Your task to perform on an android device: toggle show notifications on the lock screen Image 0: 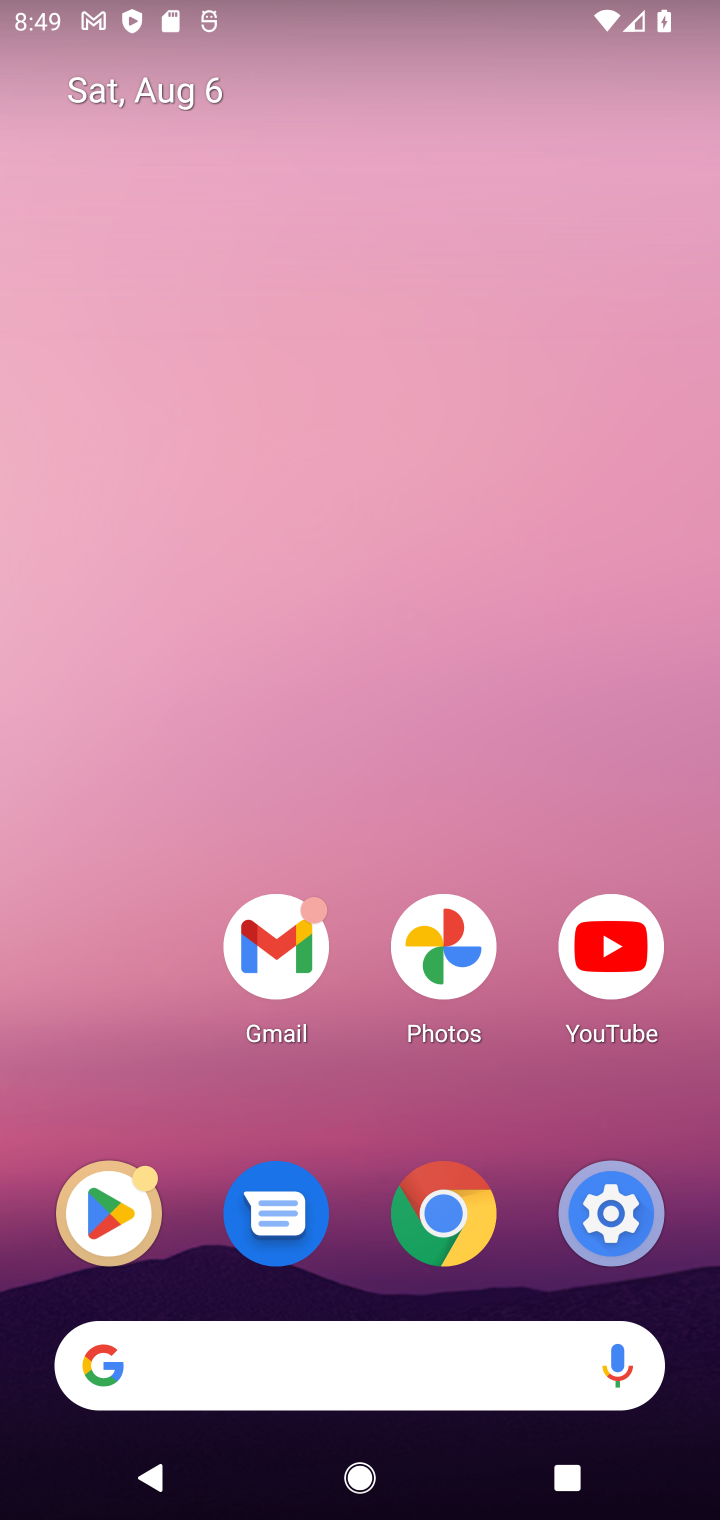
Step 0: drag from (377, 461) to (407, 90)
Your task to perform on an android device: toggle show notifications on the lock screen Image 1: 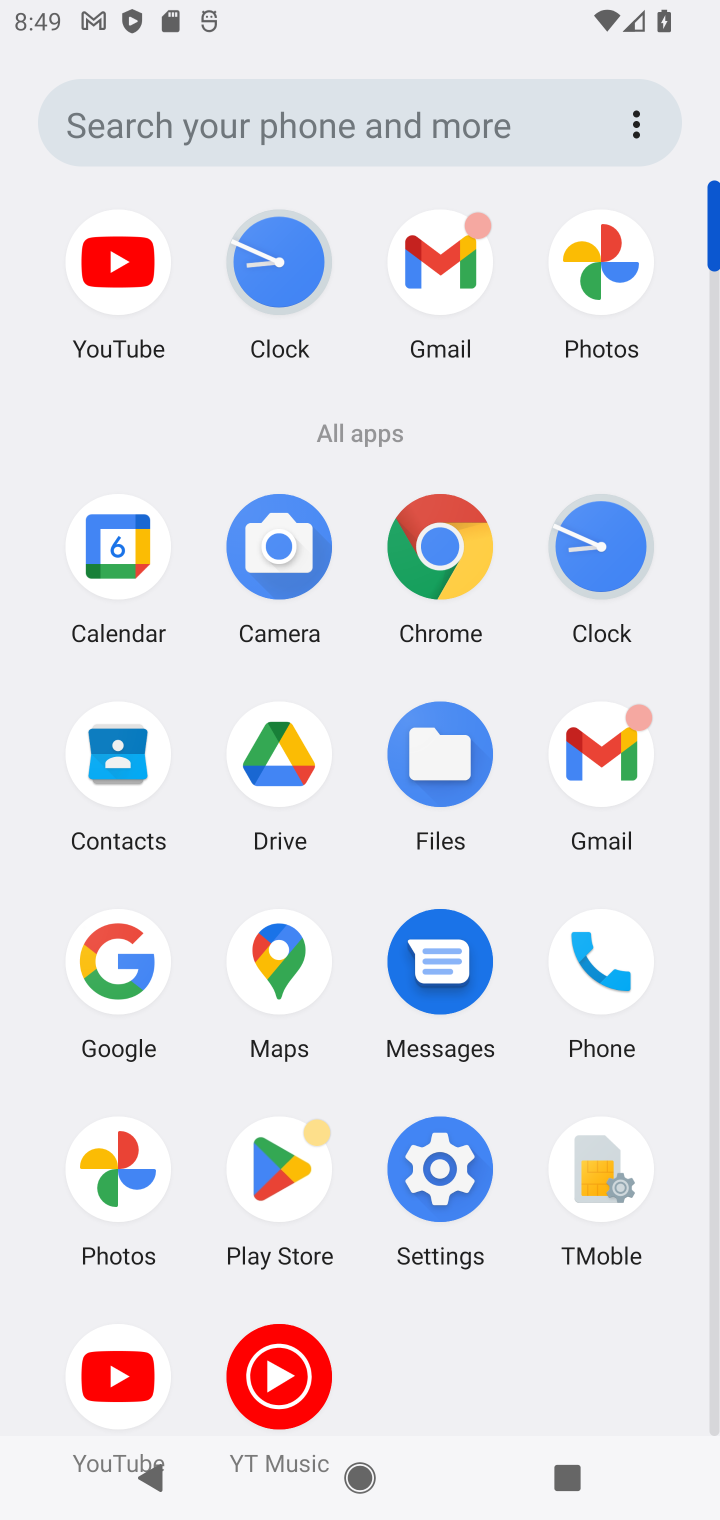
Step 1: click (436, 1173)
Your task to perform on an android device: toggle show notifications on the lock screen Image 2: 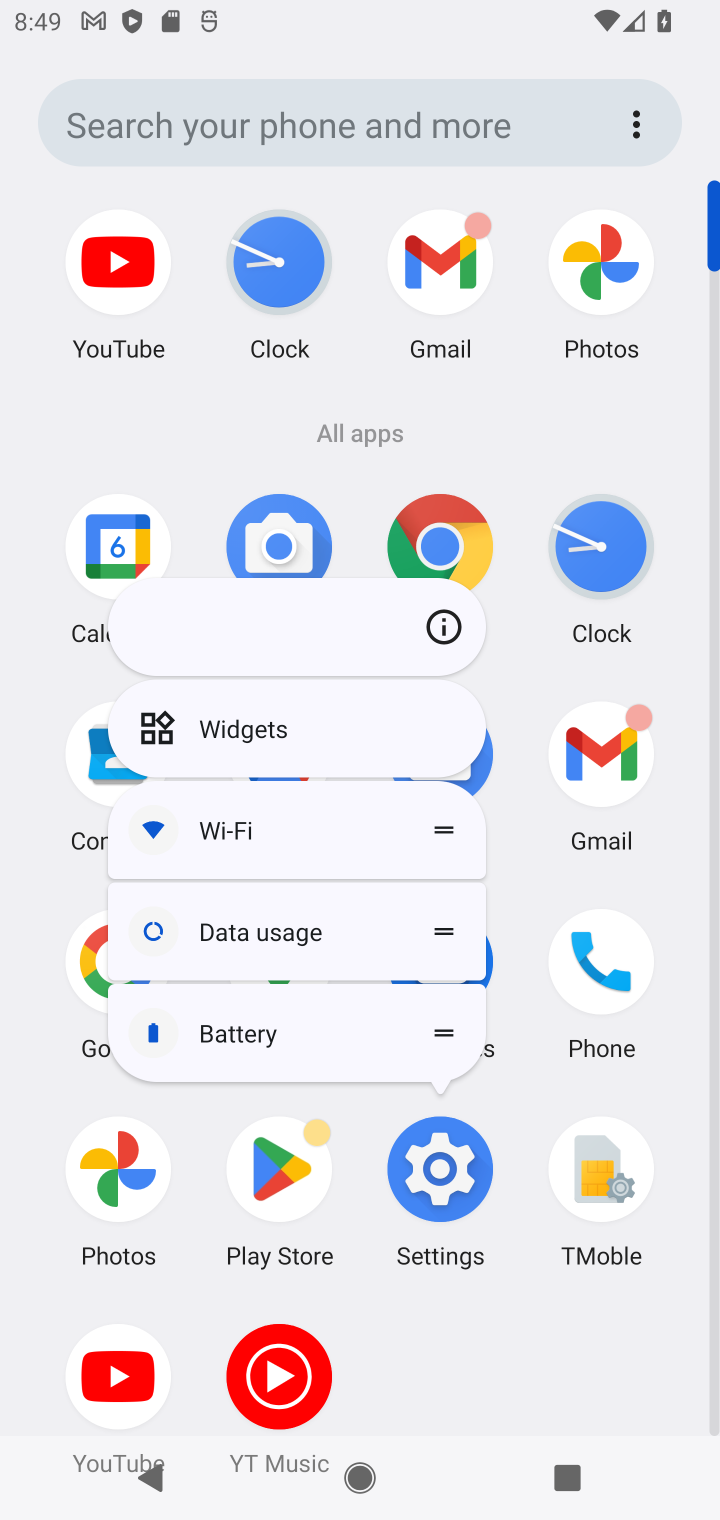
Step 2: click (430, 1152)
Your task to perform on an android device: toggle show notifications on the lock screen Image 3: 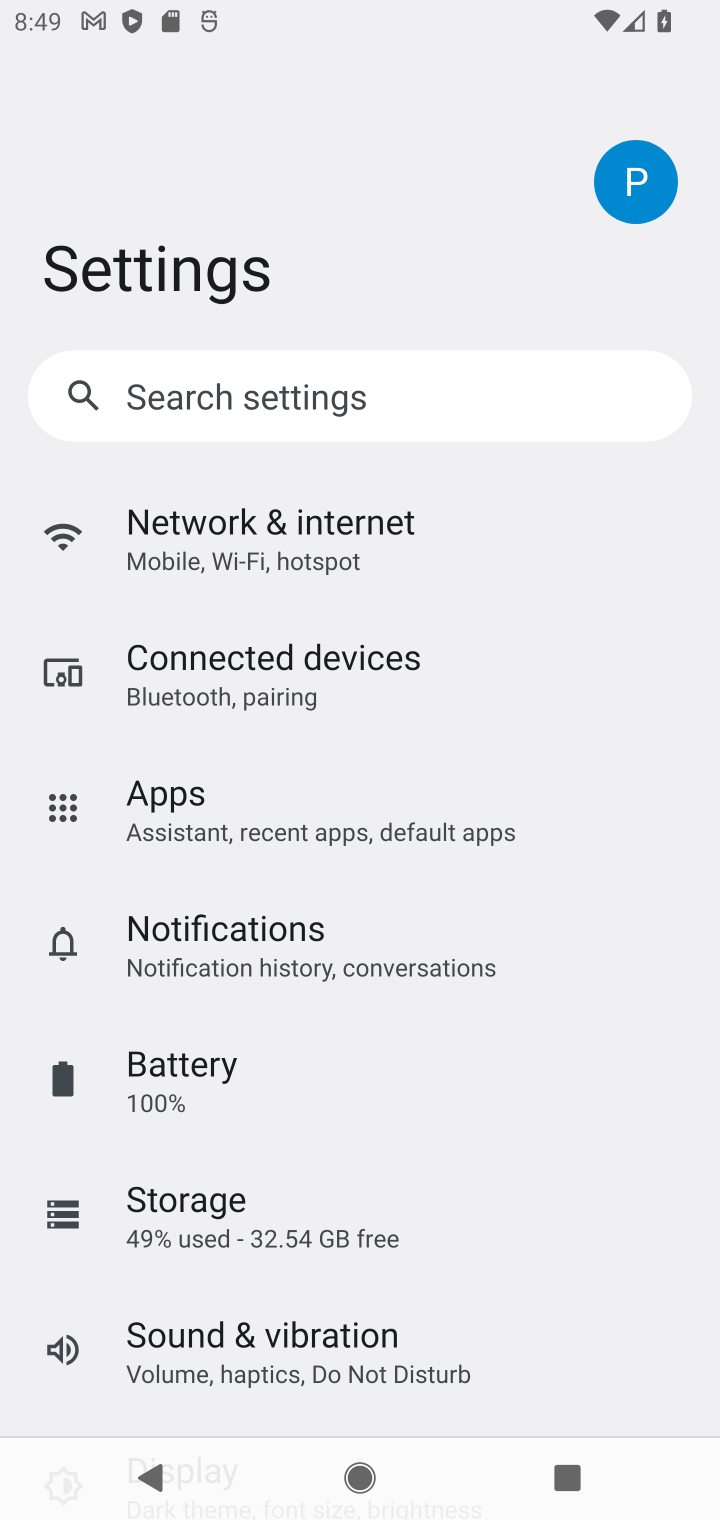
Step 3: click (331, 968)
Your task to perform on an android device: toggle show notifications on the lock screen Image 4: 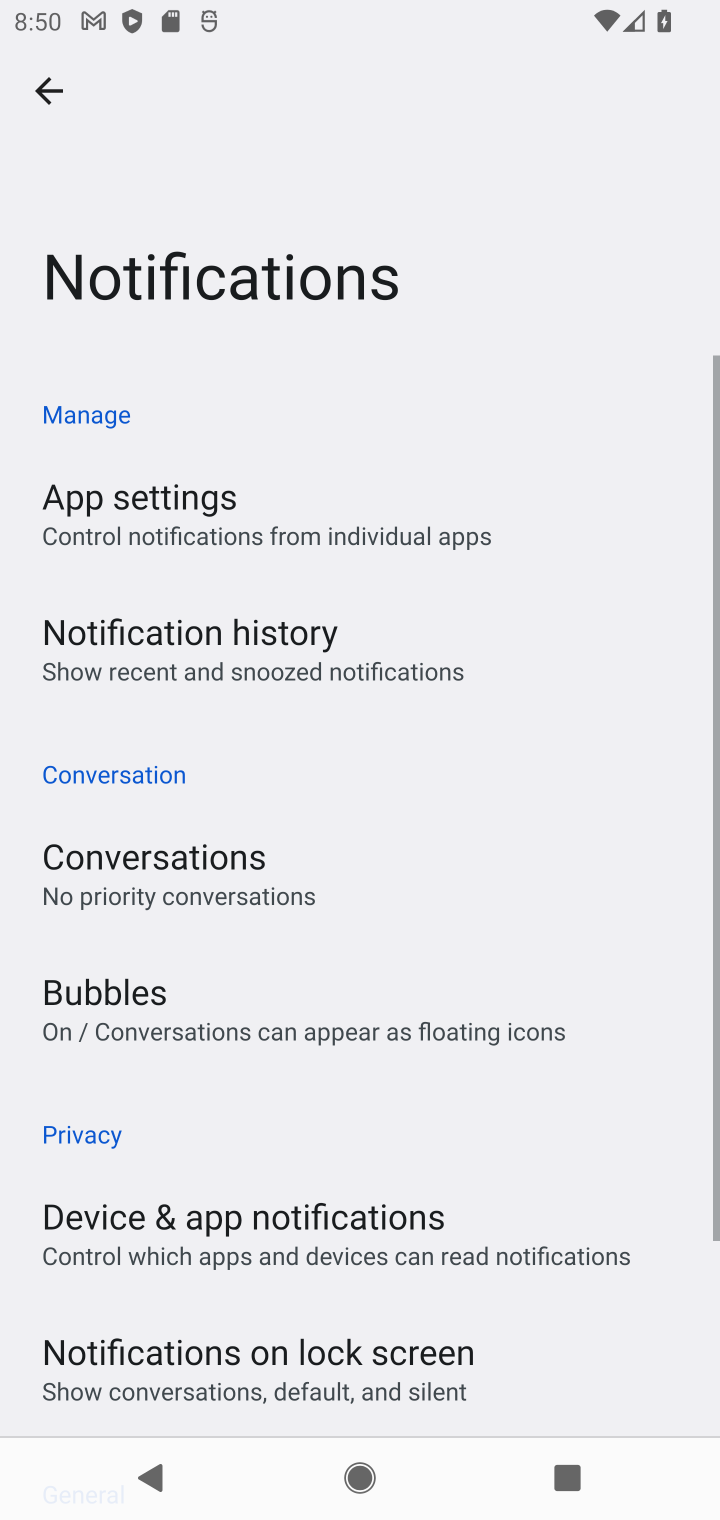
Step 4: drag from (344, 1293) to (305, 425)
Your task to perform on an android device: toggle show notifications on the lock screen Image 5: 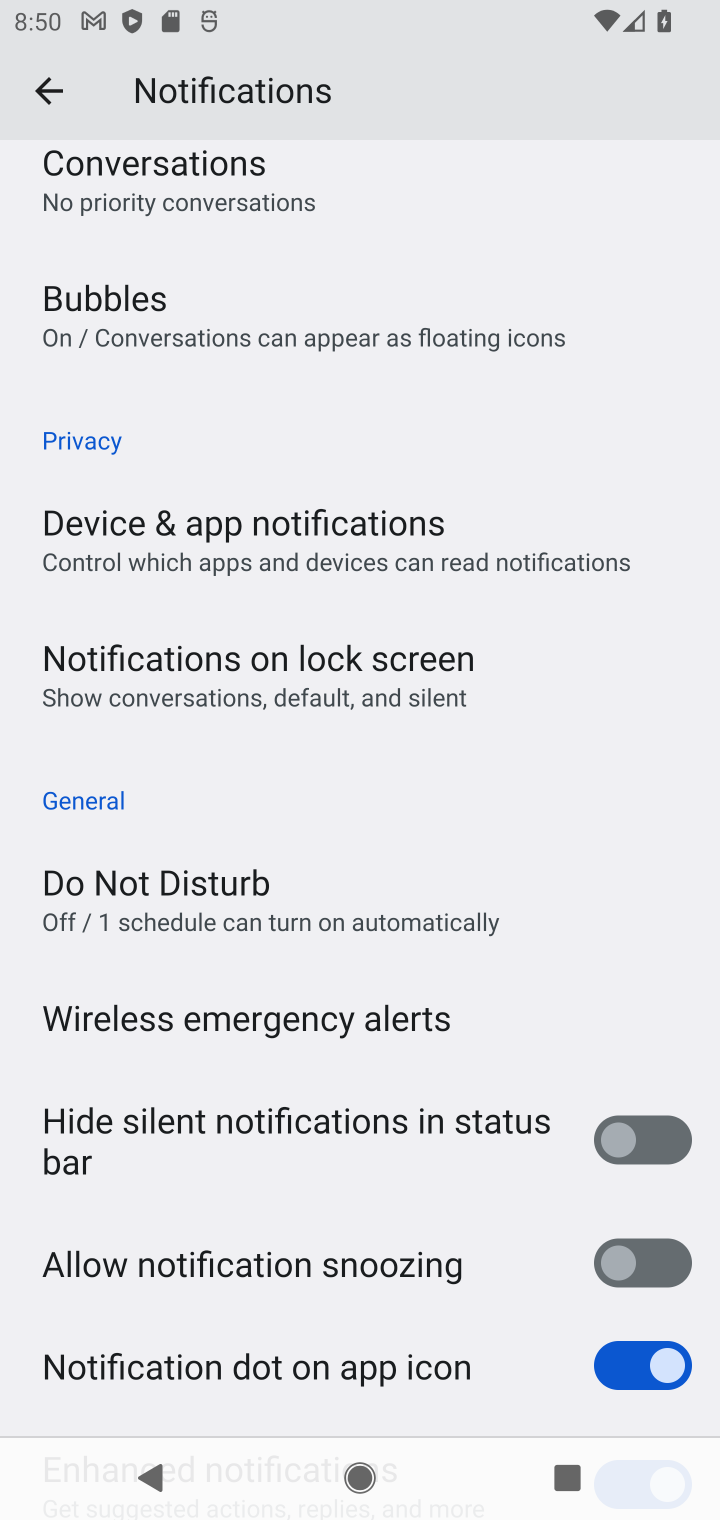
Step 5: click (256, 687)
Your task to perform on an android device: toggle show notifications on the lock screen Image 6: 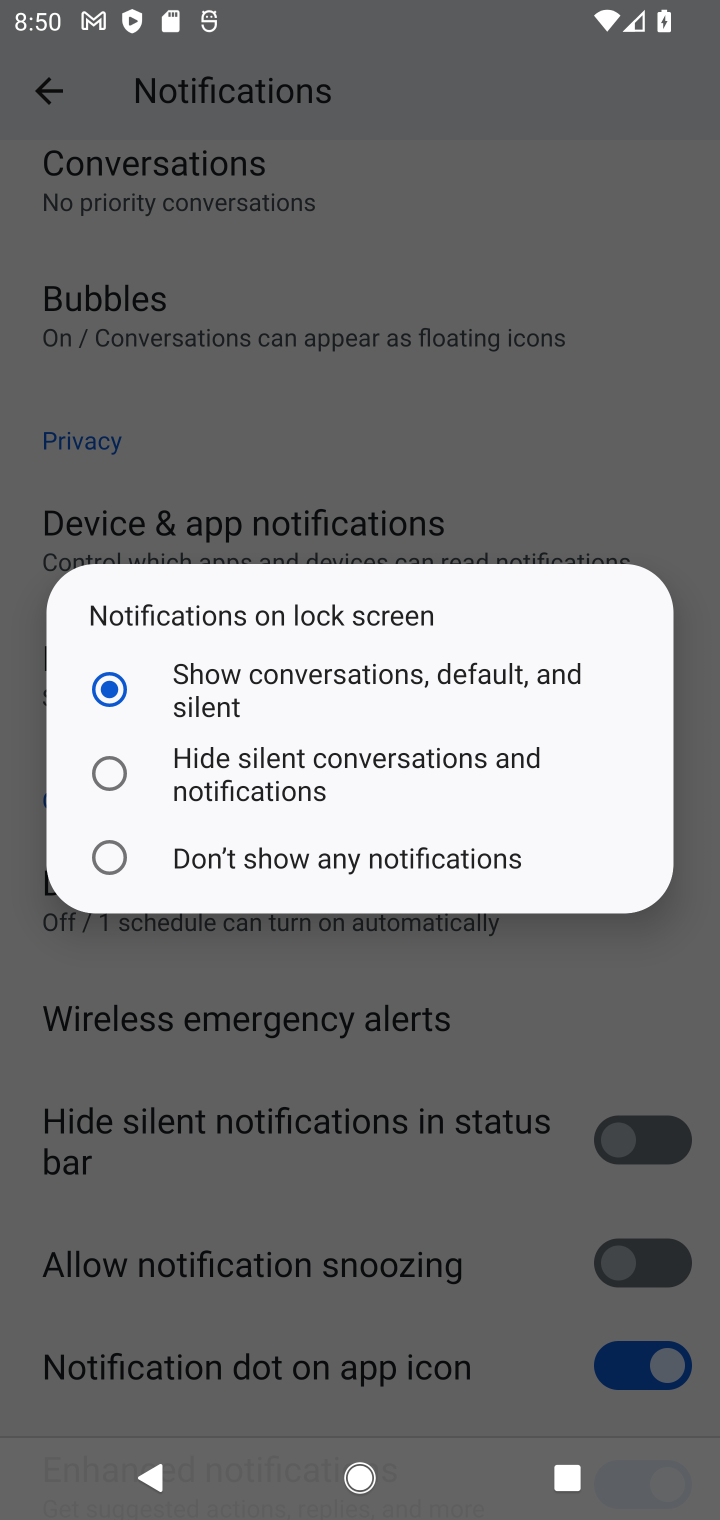
Step 6: click (135, 782)
Your task to perform on an android device: toggle show notifications on the lock screen Image 7: 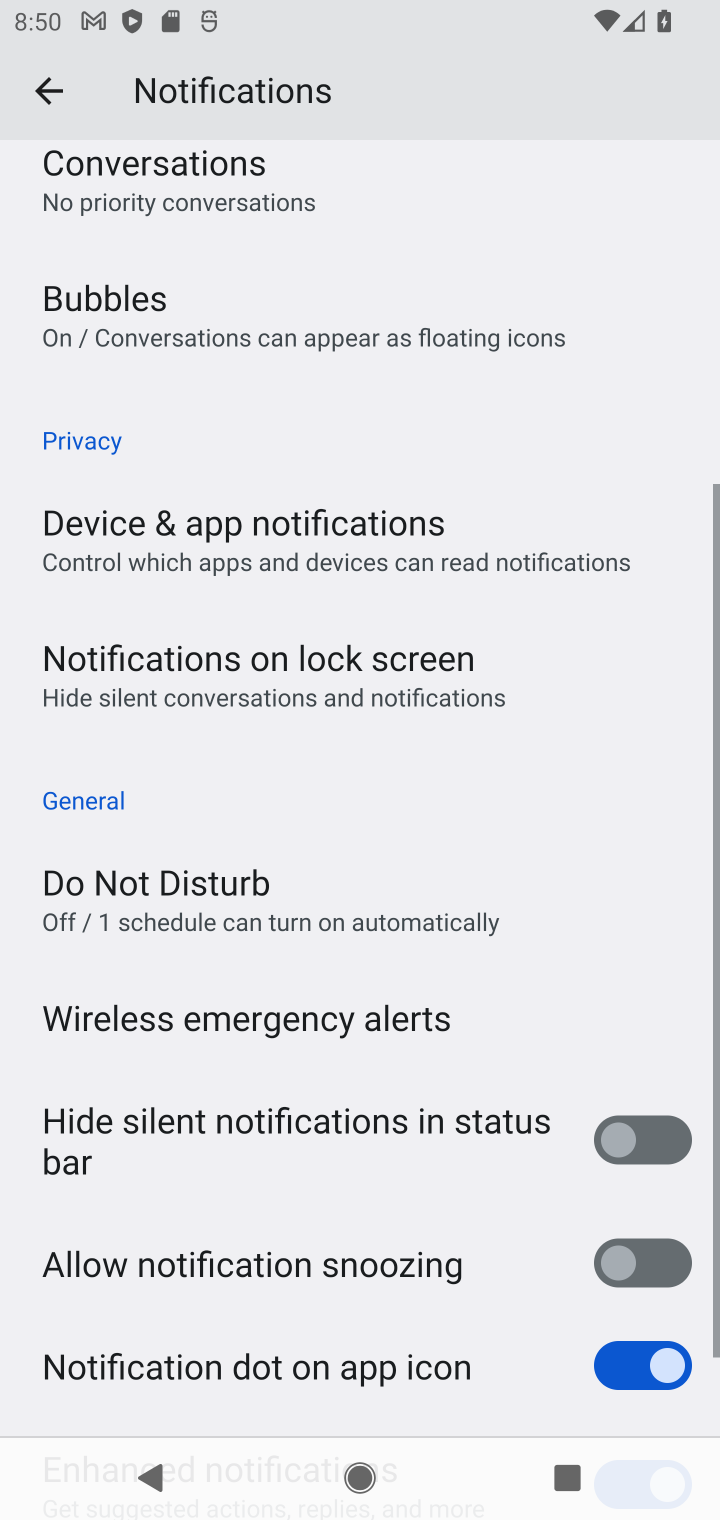
Step 7: task complete